Your task to perform on an android device: What's on my calendar today? Image 0: 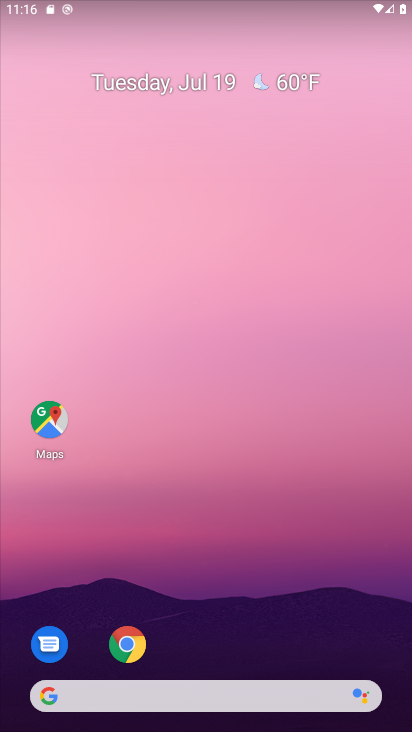
Step 0: drag from (206, 662) to (231, 216)
Your task to perform on an android device: What's on my calendar today? Image 1: 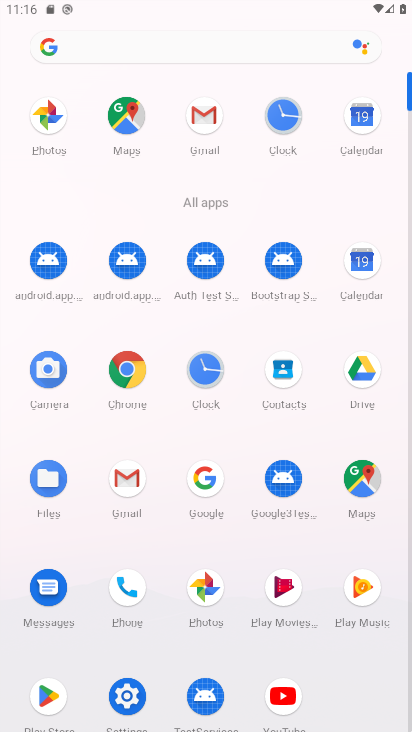
Step 1: click (360, 269)
Your task to perform on an android device: What's on my calendar today? Image 2: 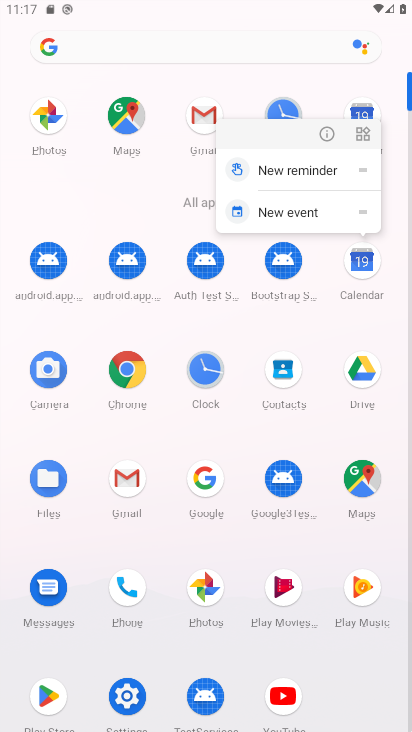
Step 2: click (361, 275)
Your task to perform on an android device: What's on my calendar today? Image 3: 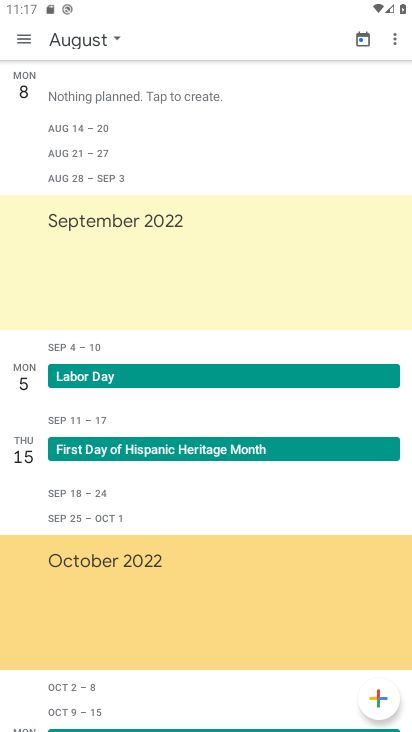
Step 3: click (20, 43)
Your task to perform on an android device: What's on my calendar today? Image 4: 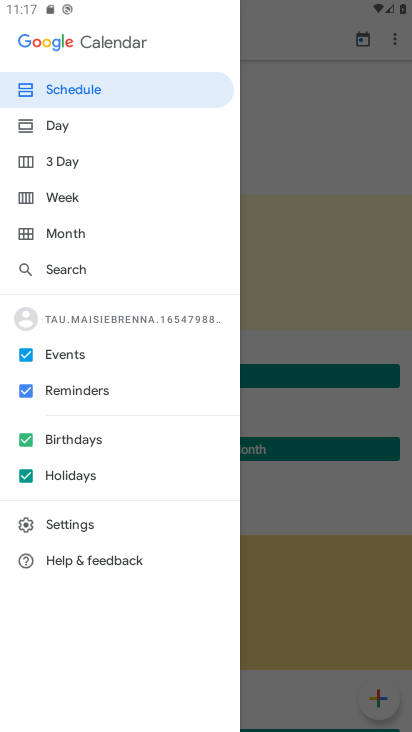
Step 4: click (90, 232)
Your task to perform on an android device: What's on my calendar today? Image 5: 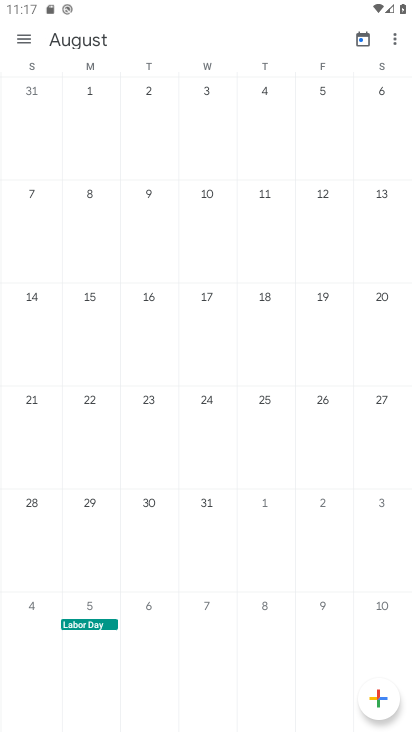
Step 5: drag from (43, 369) to (408, 275)
Your task to perform on an android device: What's on my calendar today? Image 6: 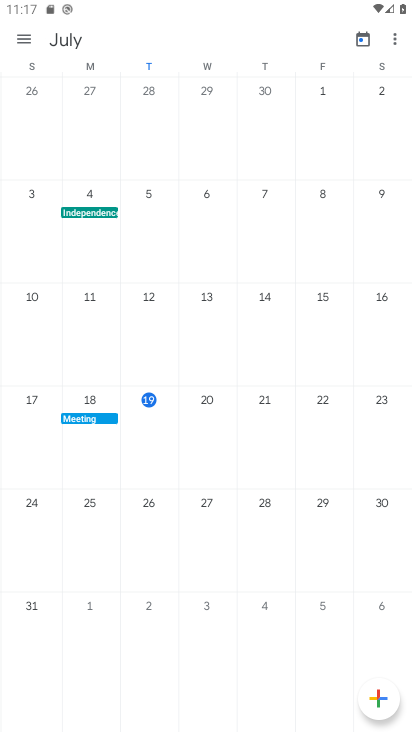
Step 6: click (146, 410)
Your task to perform on an android device: What's on my calendar today? Image 7: 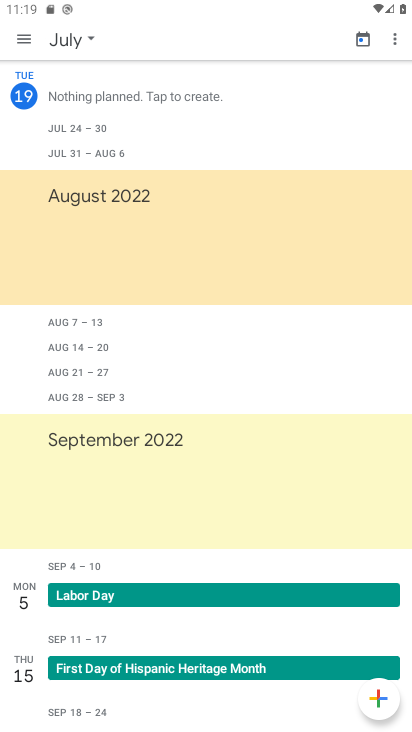
Step 7: task complete